Your task to perform on an android device: Open Google Maps Image 0: 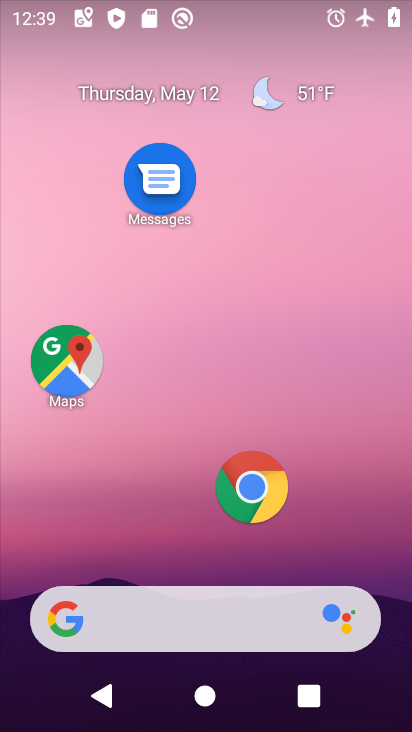
Step 0: click (71, 378)
Your task to perform on an android device: Open Google Maps Image 1: 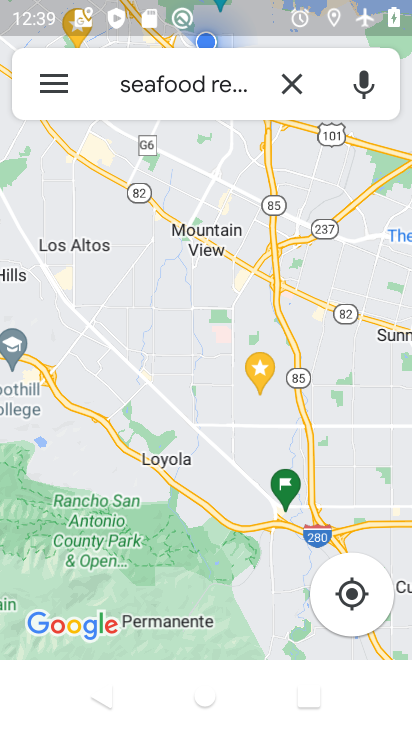
Step 1: task complete